Your task to perform on an android device: Go to display settings Image 0: 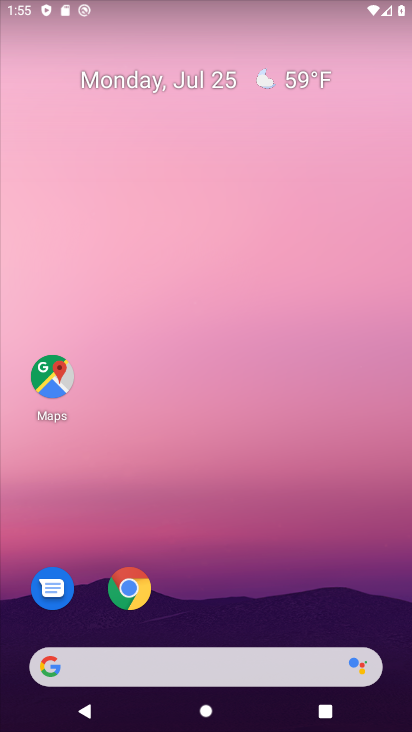
Step 0: drag from (362, 571) to (292, 200)
Your task to perform on an android device: Go to display settings Image 1: 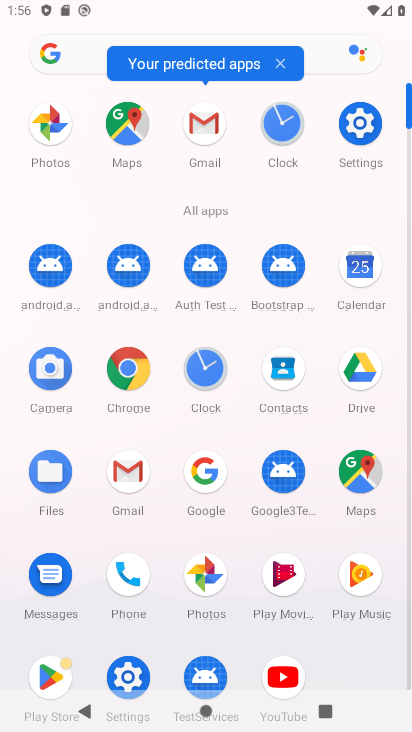
Step 1: click (126, 666)
Your task to perform on an android device: Go to display settings Image 2: 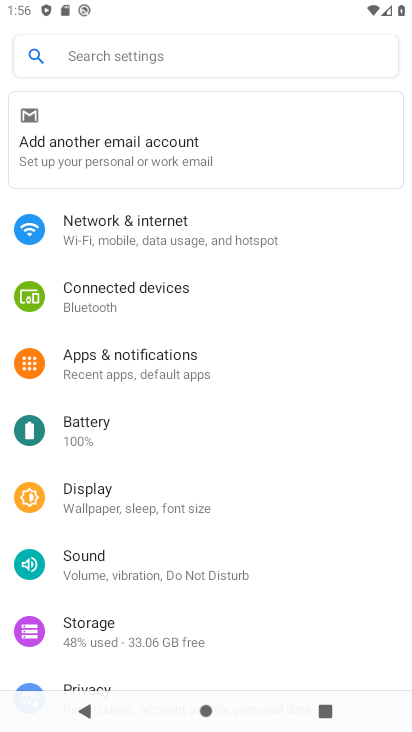
Step 2: click (141, 507)
Your task to perform on an android device: Go to display settings Image 3: 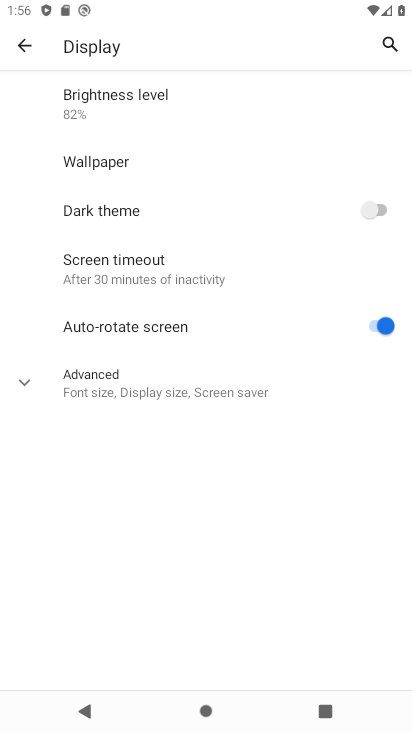
Step 3: click (141, 507)
Your task to perform on an android device: Go to display settings Image 4: 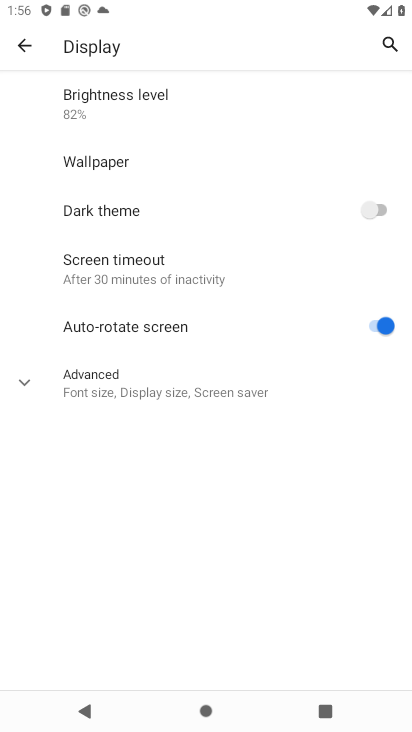
Step 4: task complete